Your task to perform on an android device: turn off translation in the chrome app Image 0: 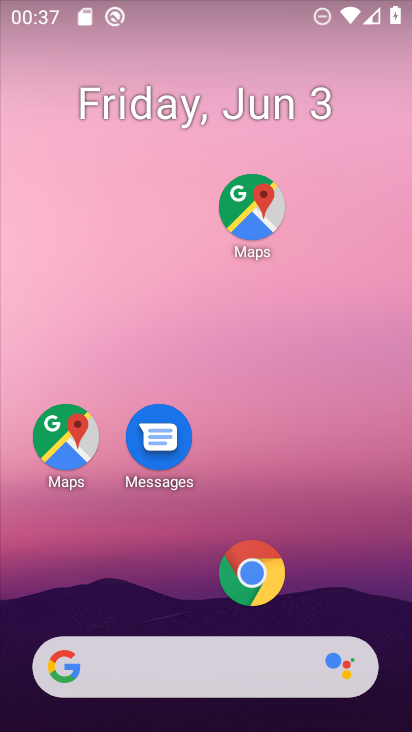
Step 0: click (260, 565)
Your task to perform on an android device: turn off translation in the chrome app Image 1: 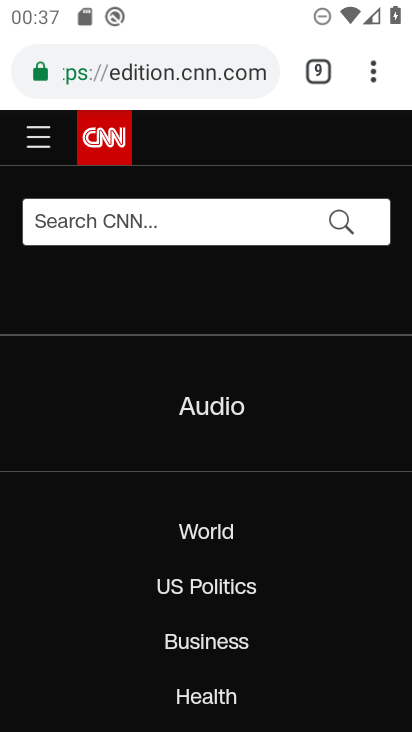
Step 1: click (370, 70)
Your task to perform on an android device: turn off translation in the chrome app Image 2: 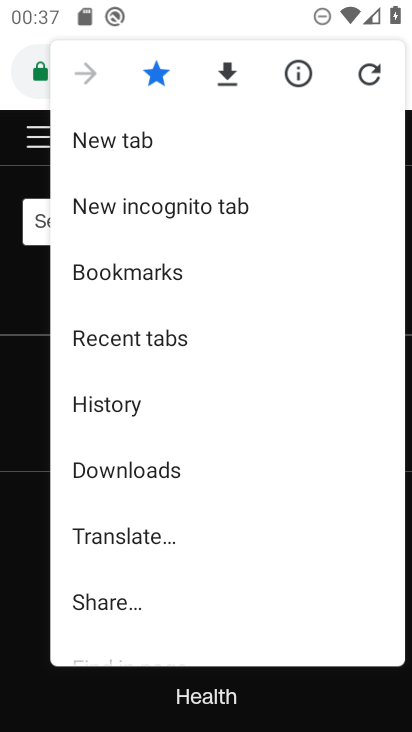
Step 2: drag from (195, 583) to (208, 180)
Your task to perform on an android device: turn off translation in the chrome app Image 3: 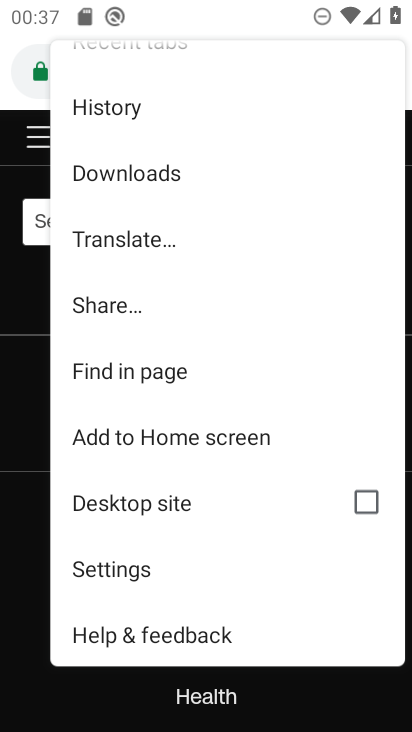
Step 3: click (114, 566)
Your task to perform on an android device: turn off translation in the chrome app Image 4: 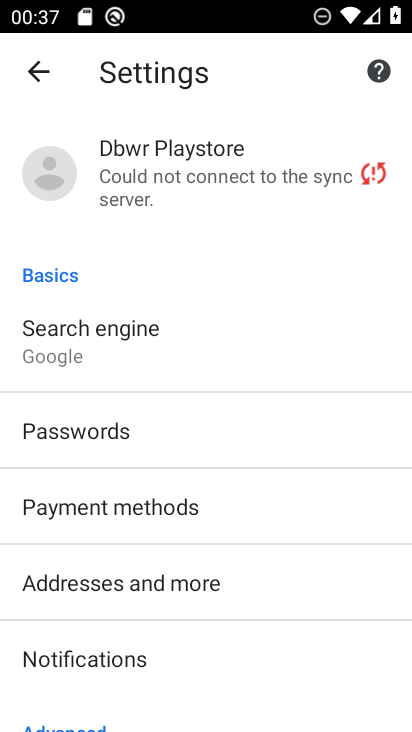
Step 4: drag from (275, 641) to (283, 137)
Your task to perform on an android device: turn off translation in the chrome app Image 5: 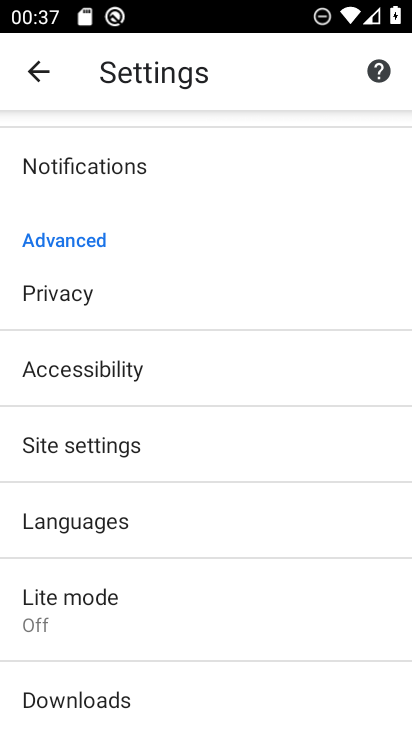
Step 5: click (95, 521)
Your task to perform on an android device: turn off translation in the chrome app Image 6: 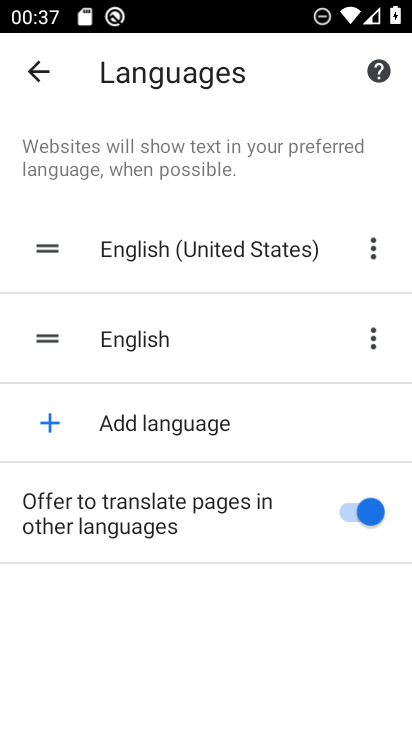
Step 6: click (355, 517)
Your task to perform on an android device: turn off translation in the chrome app Image 7: 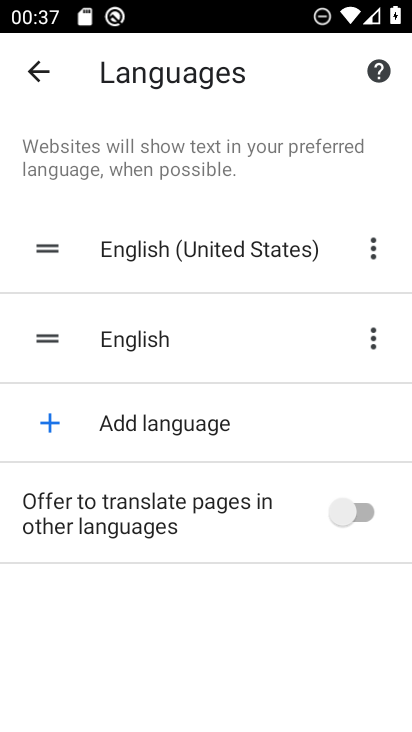
Step 7: task complete